Your task to perform on an android device: turn on wifi Image 0: 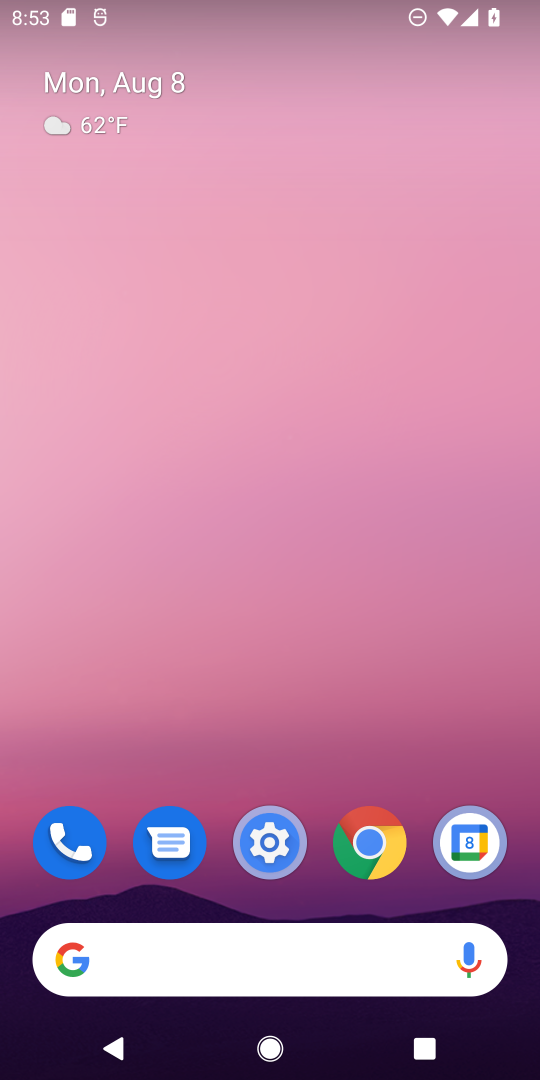
Step 0: click (271, 842)
Your task to perform on an android device: turn on wifi Image 1: 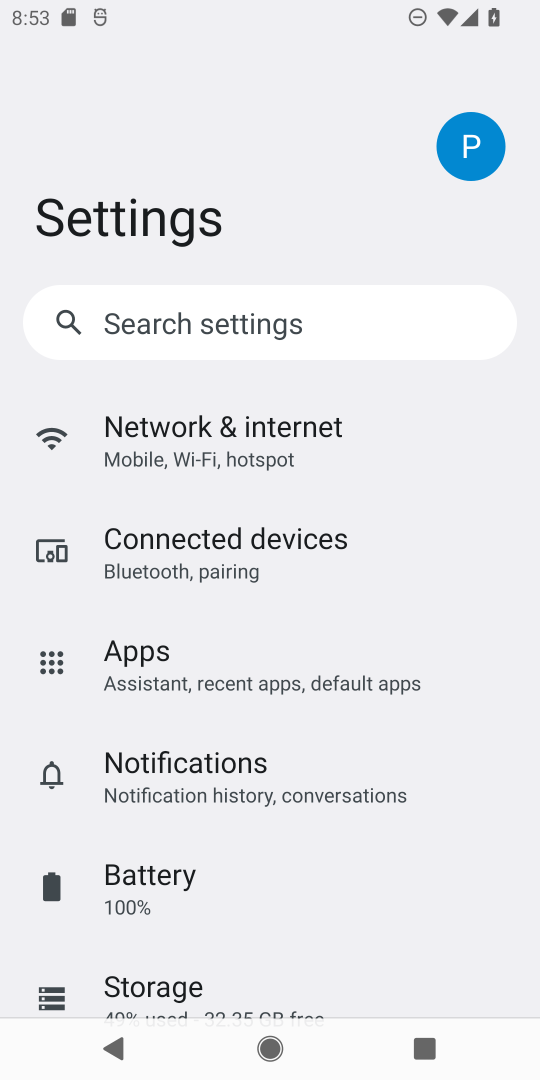
Step 1: click (258, 432)
Your task to perform on an android device: turn on wifi Image 2: 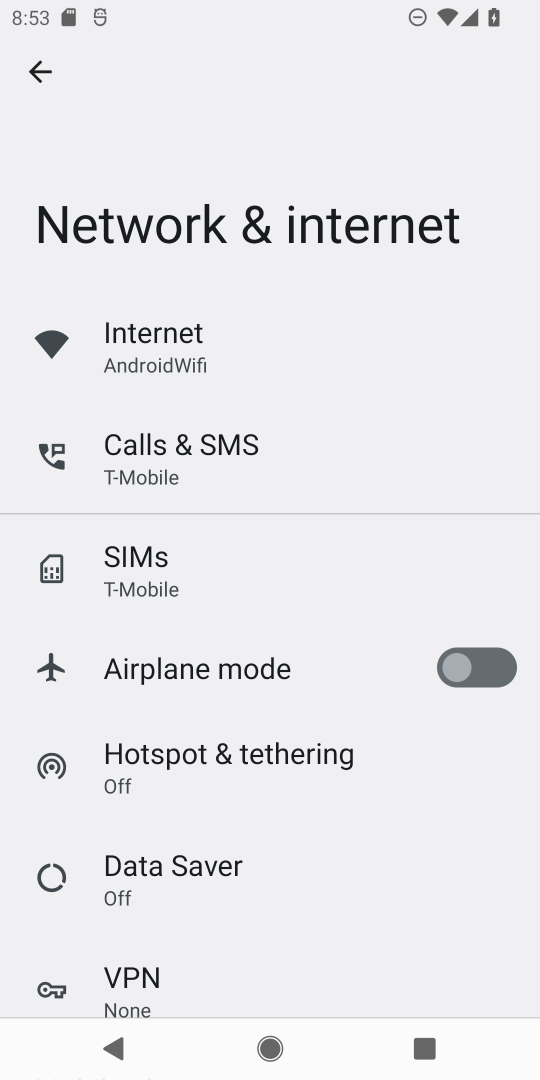
Step 2: click (171, 339)
Your task to perform on an android device: turn on wifi Image 3: 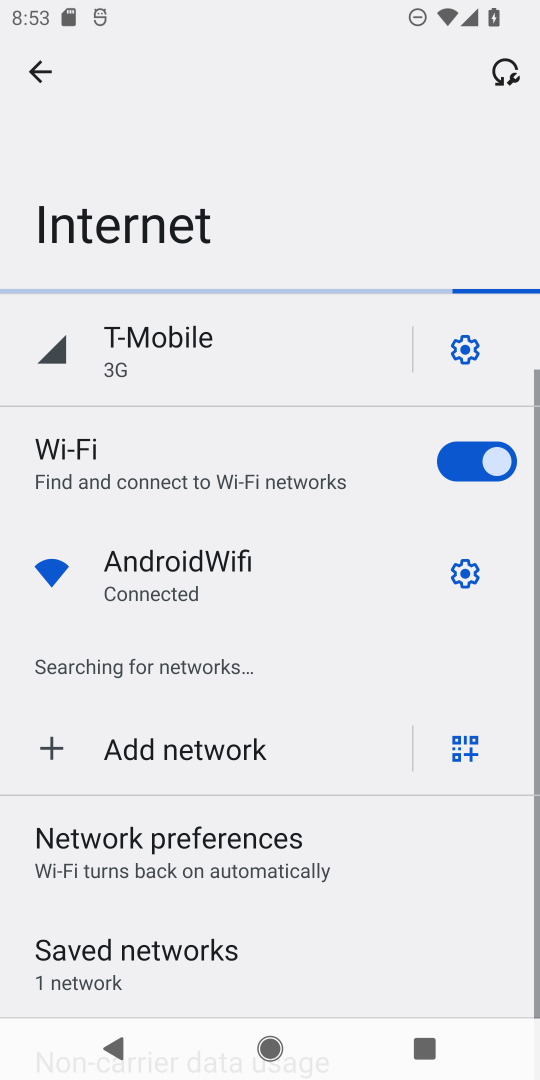
Step 3: task complete